Your task to perform on an android device: Go to Yahoo.com Image 0: 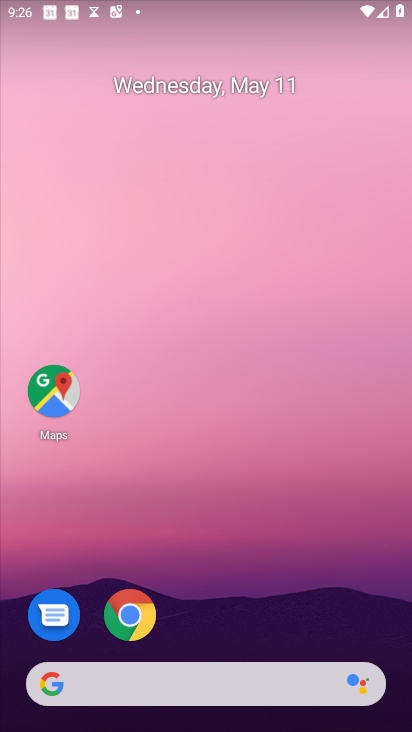
Step 0: click (129, 626)
Your task to perform on an android device: Go to Yahoo.com Image 1: 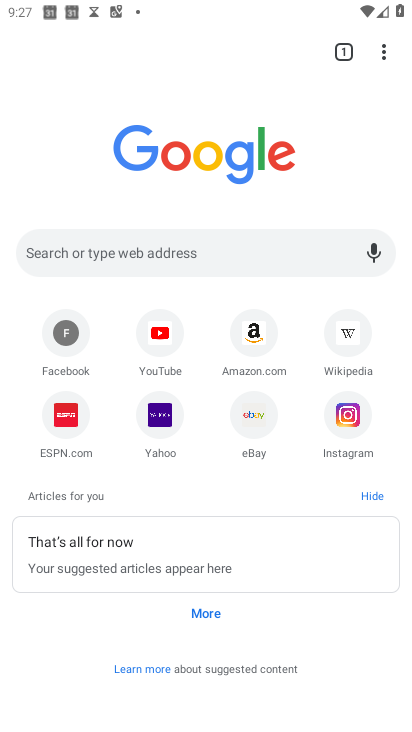
Step 1: click (172, 423)
Your task to perform on an android device: Go to Yahoo.com Image 2: 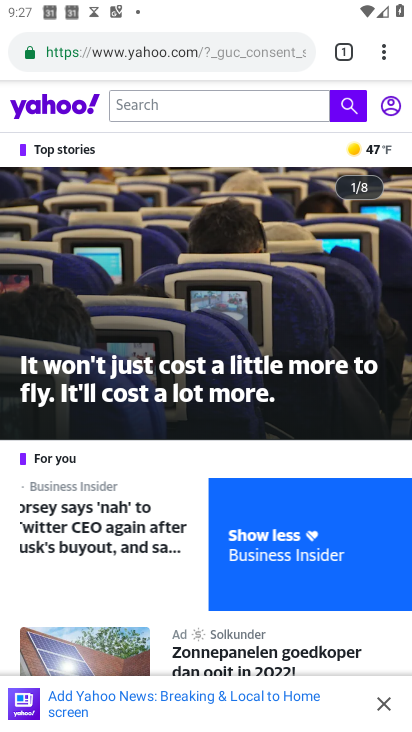
Step 2: task complete